Your task to perform on an android device: Is it going to rain this weekend? Image 0: 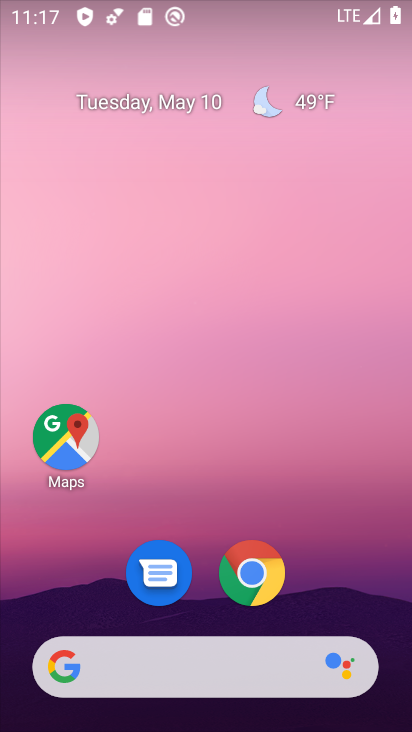
Step 0: click (316, 100)
Your task to perform on an android device: Is it going to rain this weekend? Image 1: 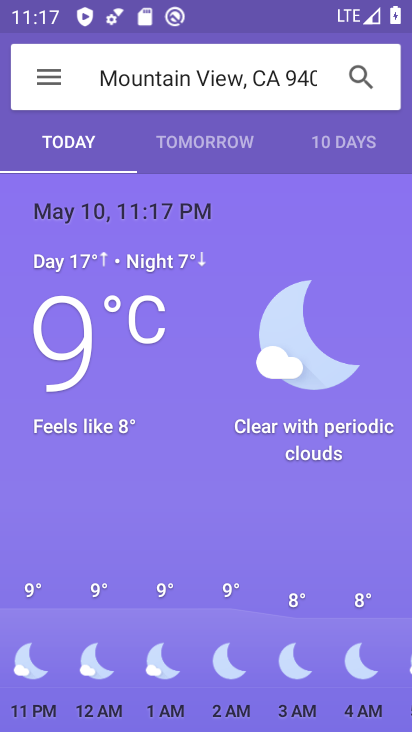
Step 1: click (339, 145)
Your task to perform on an android device: Is it going to rain this weekend? Image 2: 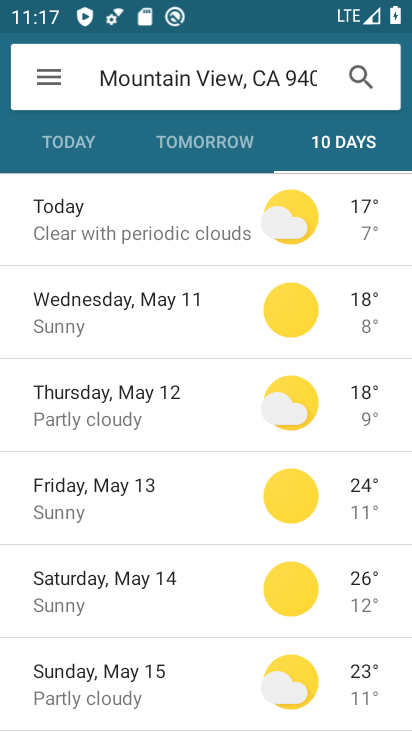
Step 2: click (113, 580)
Your task to perform on an android device: Is it going to rain this weekend? Image 3: 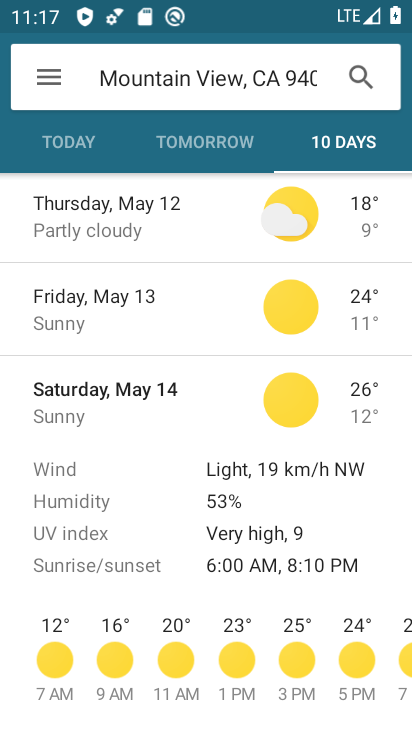
Step 3: task complete